Your task to perform on an android device: set the timer Image 0: 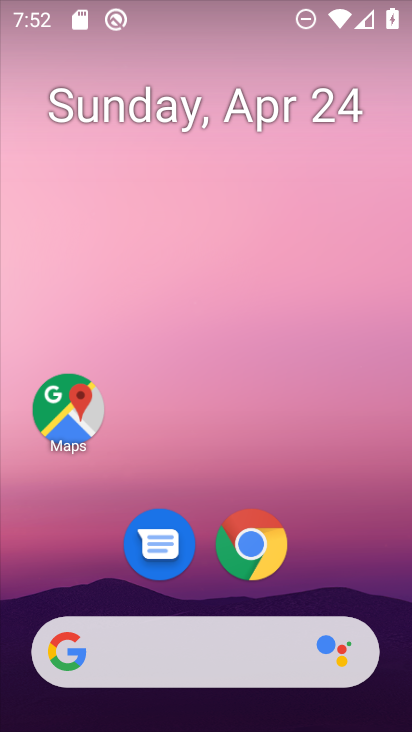
Step 0: drag from (206, 651) to (309, 124)
Your task to perform on an android device: set the timer Image 1: 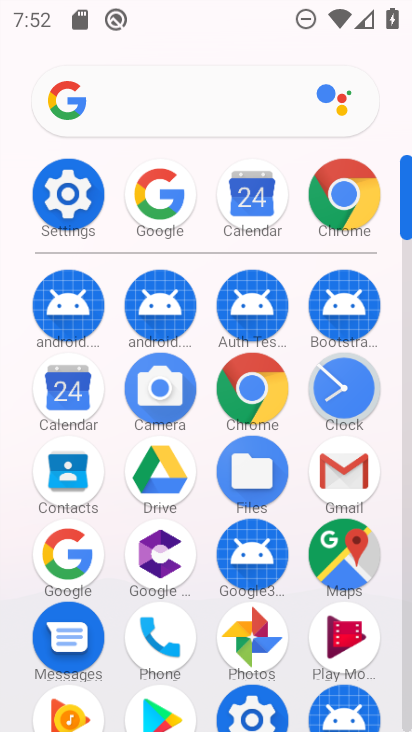
Step 1: click (346, 392)
Your task to perform on an android device: set the timer Image 2: 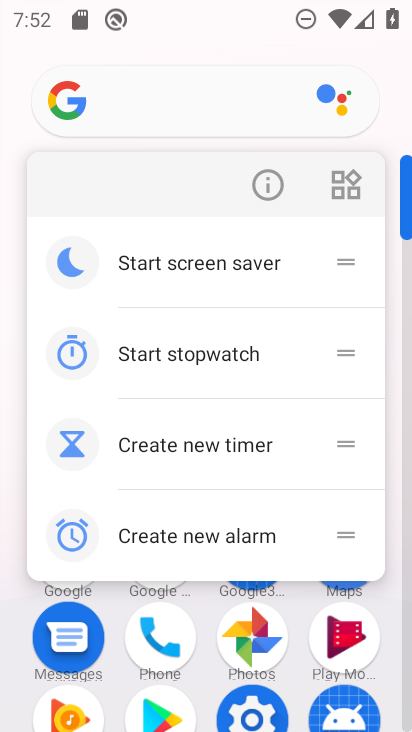
Step 2: drag from (242, 686) to (350, 293)
Your task to perform on an android device: set the timer Image 3: 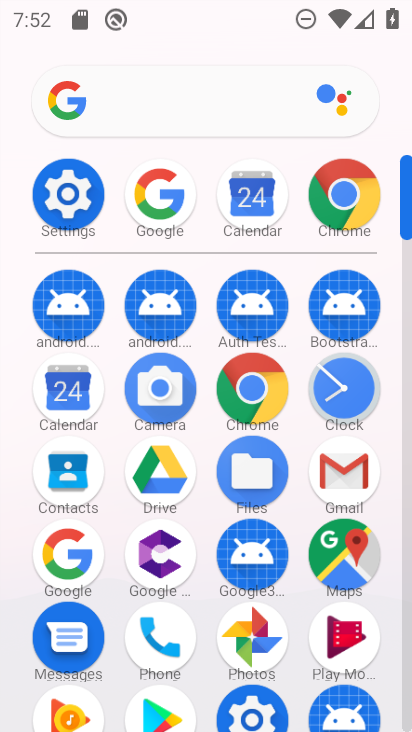
Step 3: click (351, 402)
Your task to perform on an android device: set the timer Image 4: 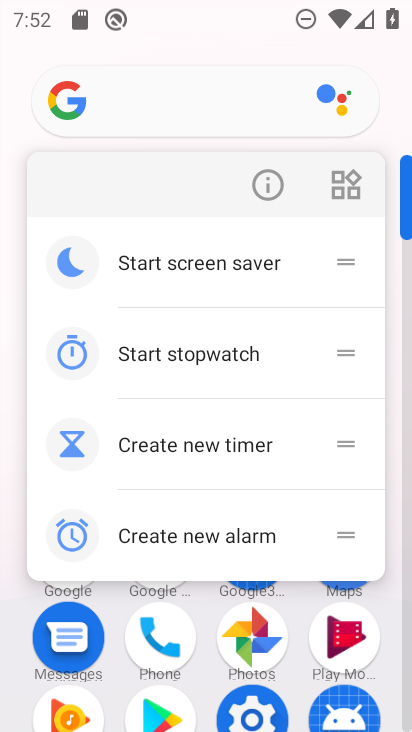
Step 4: drag from (216, 692) to (371, 243)
Your task to perform on an android device: set the timer Image 5: 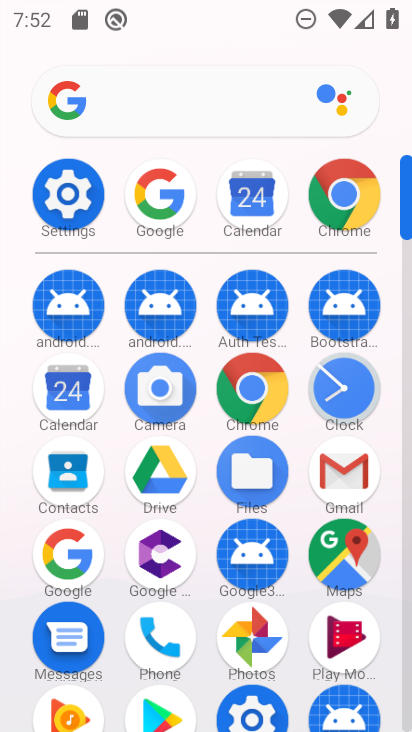
Step 5: click (341, 391)
Your task to perform on an android device: set the timer Image 6: 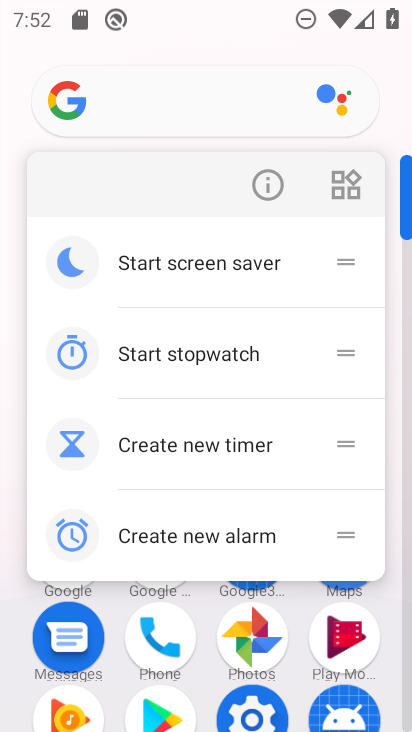
Step 6: drag from (239, 594) to (315, 366)
Your task to perform on an android device: set the timer Image 7: 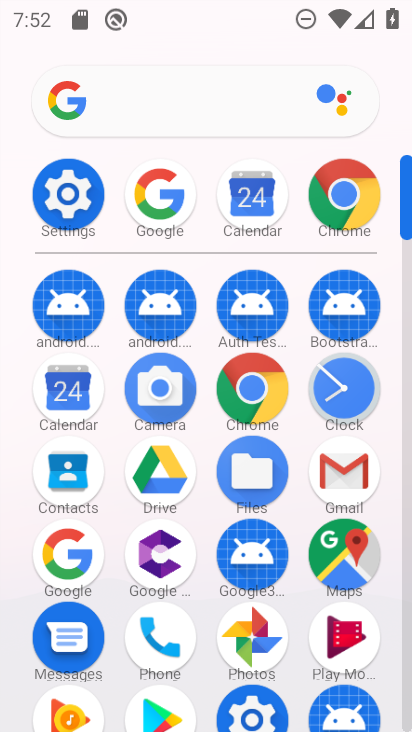
Step 7: click (345, 401)
Your task to perform on an android device: set the timer Image 8: 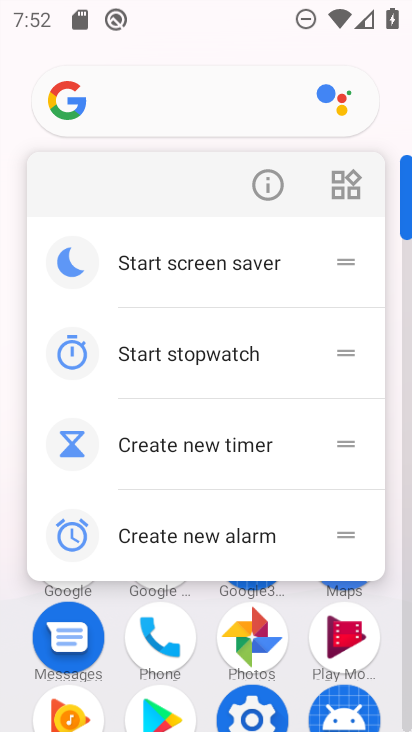
Step 8: drag from (162, 646) to (297, 312)
Your task to perform on an android device: set the timer Image 9: 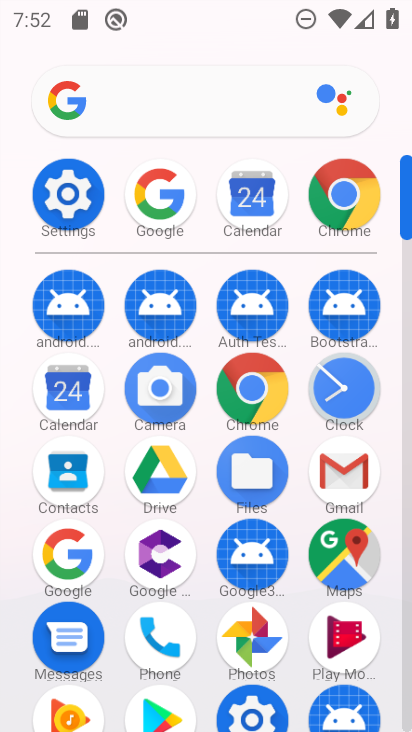
Step 9: click (347, 384)
Your task to perform on an android device: set the timer Image 10: 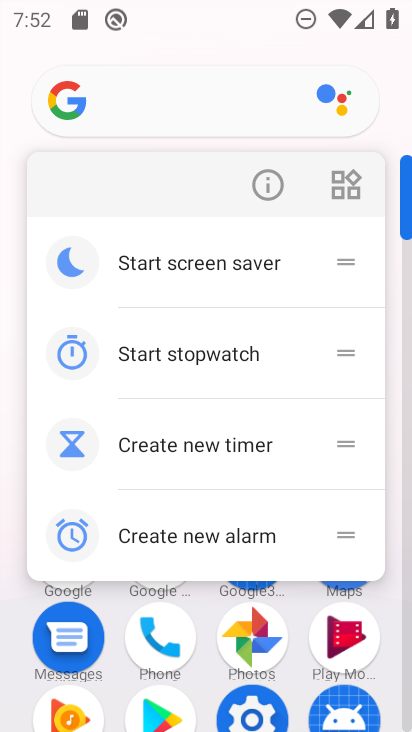
Step 10: drag from (179, 563) to (289, 336)
Your task to perform on an android device: set the timer Image 11: 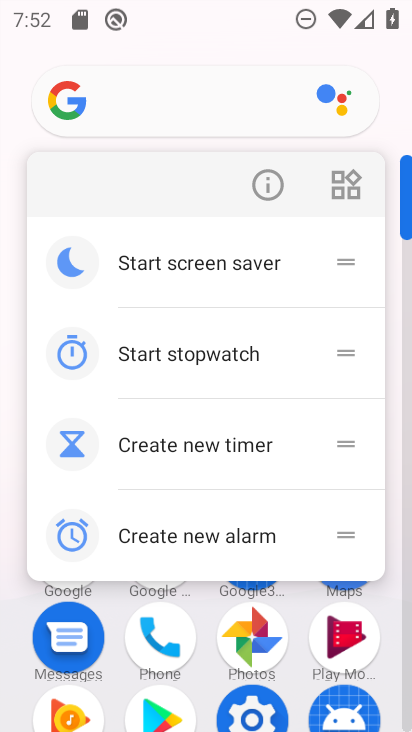
Step 11: drag from (221, 570) to (400, 71)
Your task to perform on an android device: set the timer Image 12: 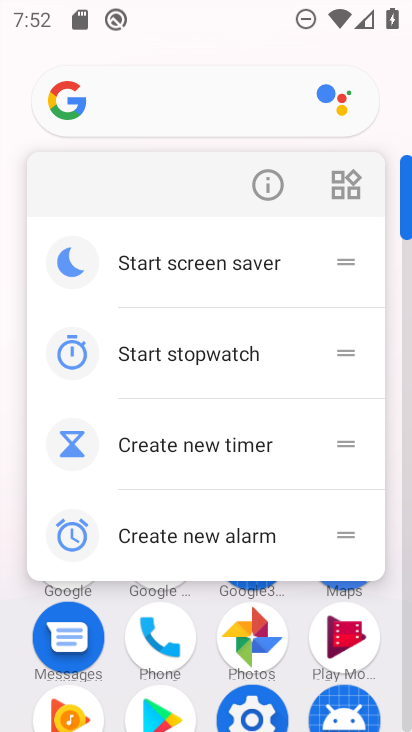
Step 12: drag from (209, 669) to (170, 731)
Your task to perform on an android device: set the timer Image 13: 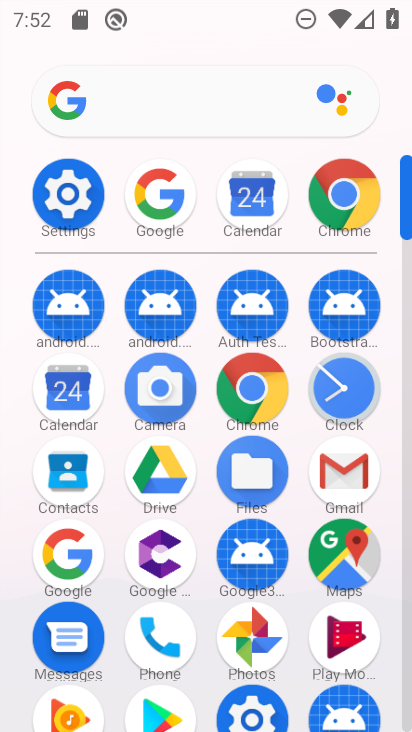
Step 13: click (347, 410)
Your task to perform on an android device: set the timer Image 14: 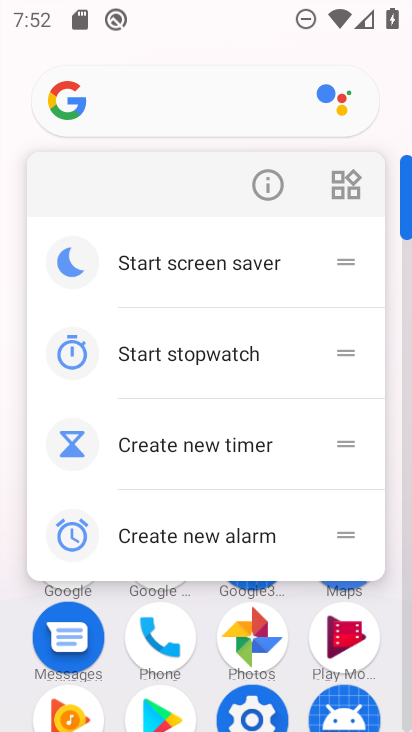
Step 14: drag from (260, 544) to (363, 217)
Your task to perform on an android device: set the timer Image 15: 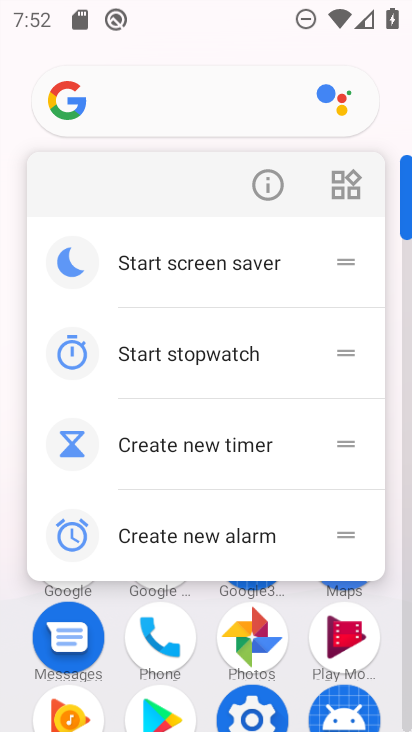
Step 15: press home button
Your task to perform on an android device: set the timer Image 16: 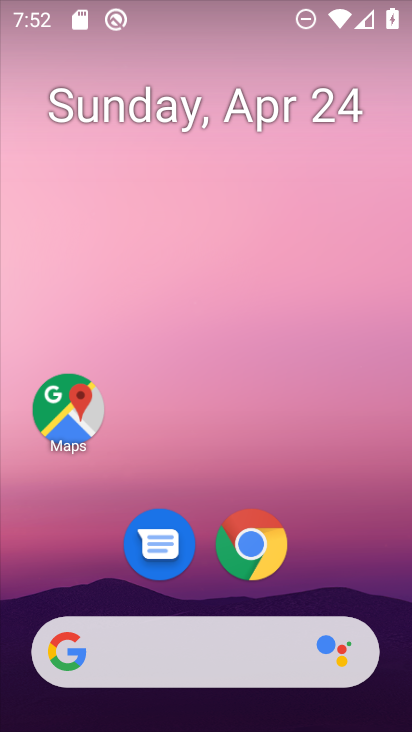
Step 16: drag from (216, 576) to (342, 77)
Your task to perform on an android device: set the timer Image 17: 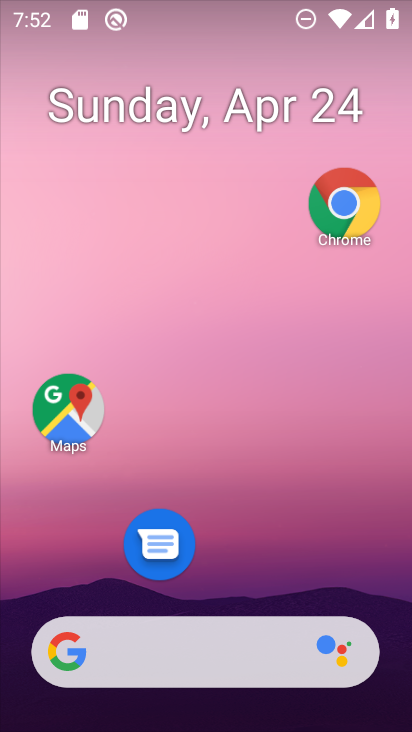
Step 17: drag from (173, 627) to (341, 68)
Your task to perform on an android device: set the timer Image 18: 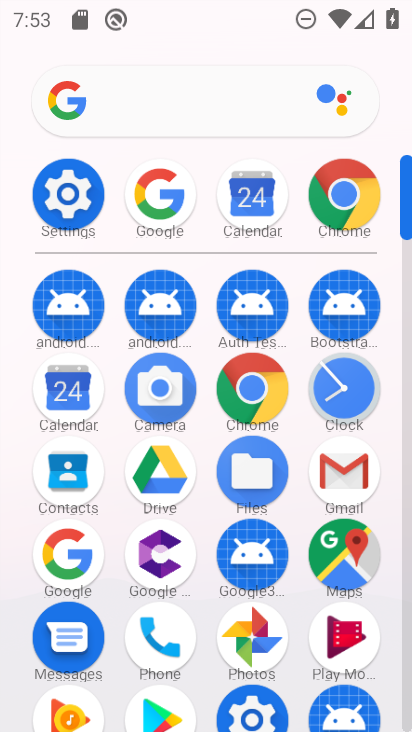
Step 18: click (344, 381)
Your task to perform on an android device: set the timer Image 19: 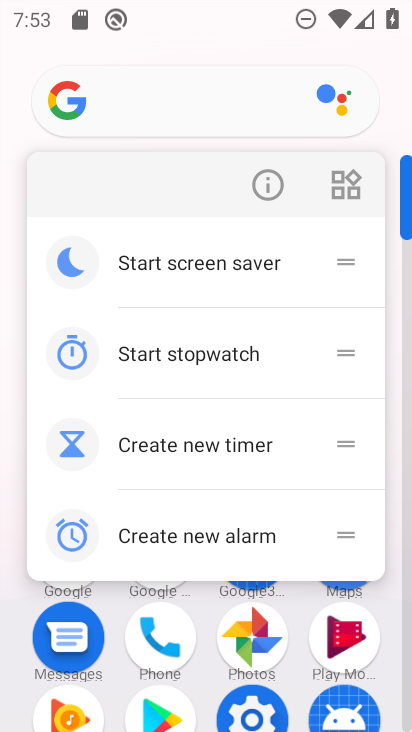
Step 19: drag from (236, 616) to (359, 363)
Your task to perform on an android device: set the timer Image 20: 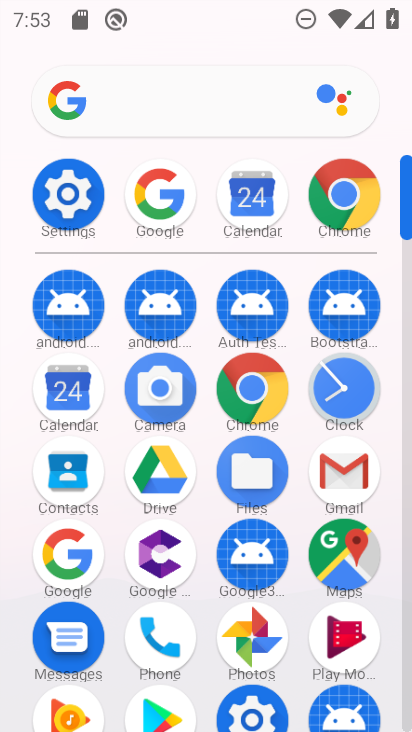
Step 20: click (341, 407)
Your task to perform on an android device: set the timer Image 21: 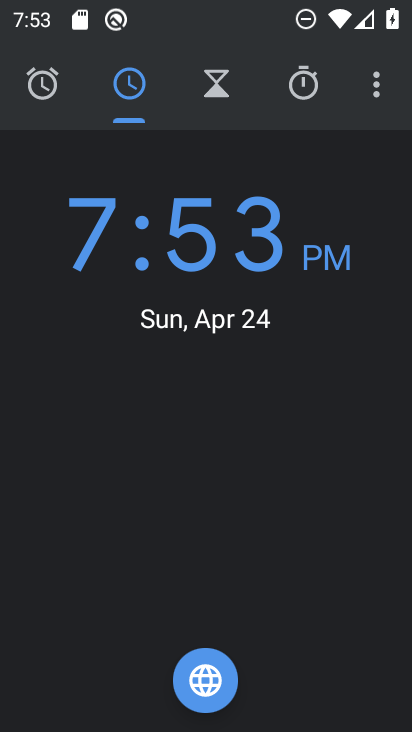
Step 21: click (219, 88)
Your task to perform on an android device: set the timer Image 22: 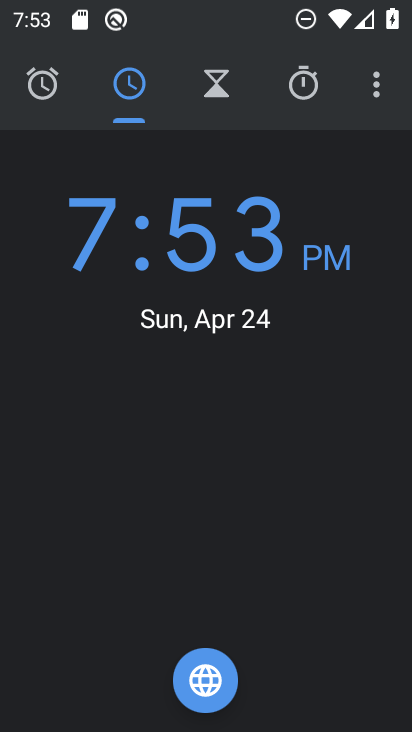
Step 22: click (219, 89)
Your task to perform on an android device: set the timer Image 23: 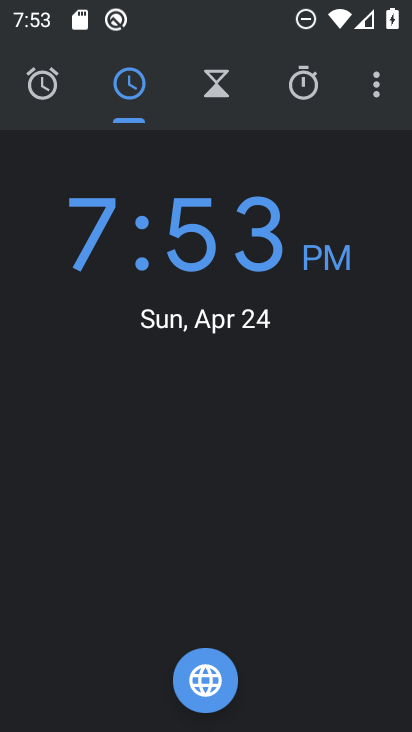
Step 23: click (214, 94)
Your task to perform on an android device: set the timer Image 24: 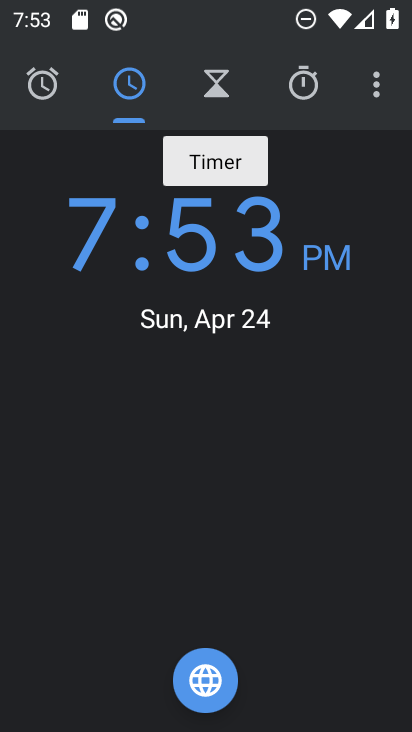
Step 24: click (215, 79)
Your task to perform on an android device: set the timer Image 25: 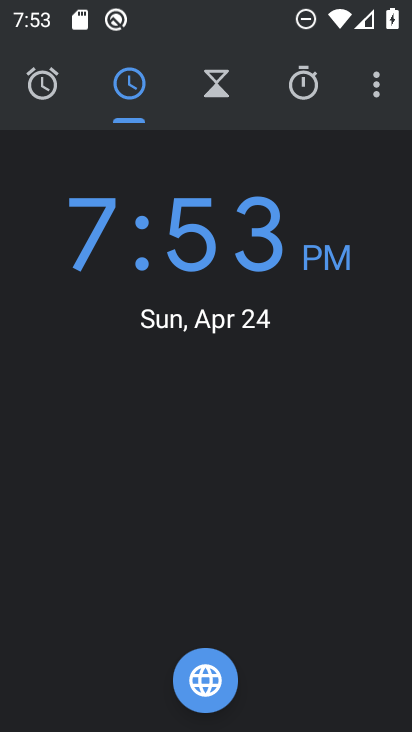
Step 25: click (218, 90)
Your task to perform on an android device: set the timer Image 26: 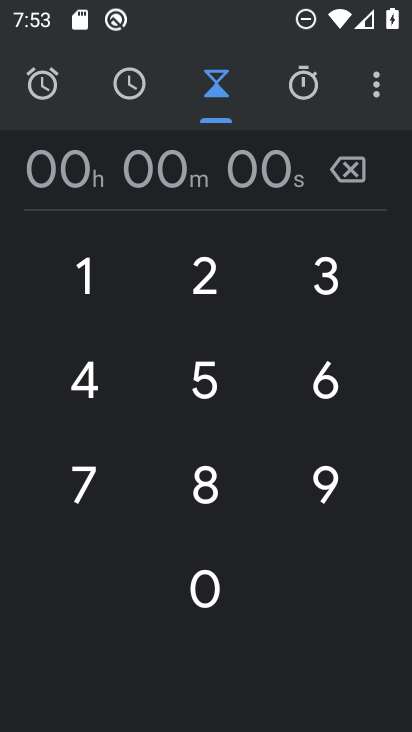
Step 26: click (334, 285)
Your task to perform on an android device: set the timer Image 27: 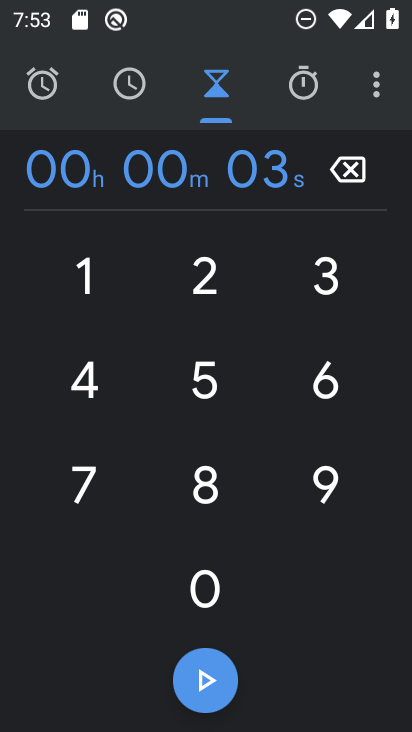
Step 27: click (335, 285)
Your task to perform on an android device: set the timer Image 28: 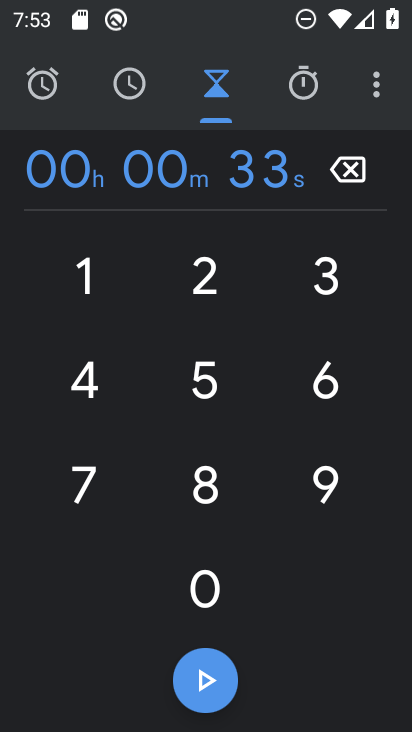
Step 28: click (205, 687)
Your task to perform on an android device: set the timer Image 29: 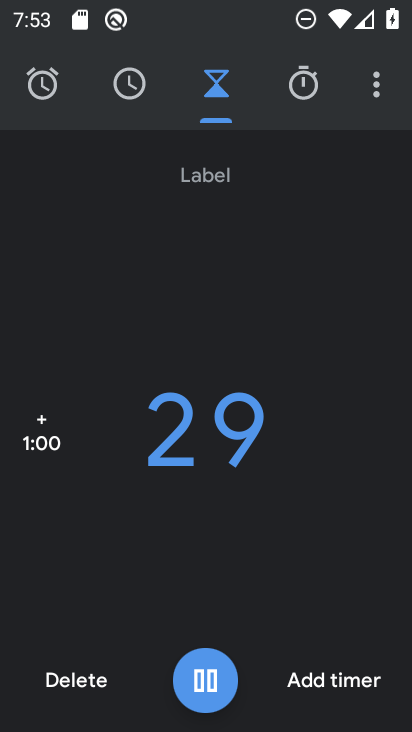
Step 29: click (210, 675)
Your task to perform on an android device: set the timer Image 30: 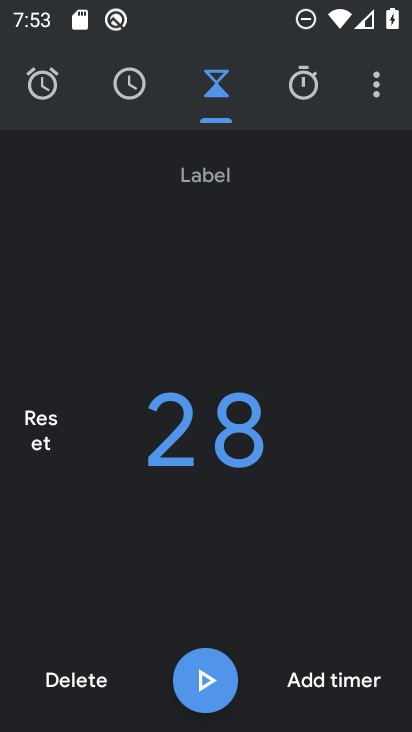
Step 30: task complete